Your task to perform on an android device: Open battery settings Image 0: 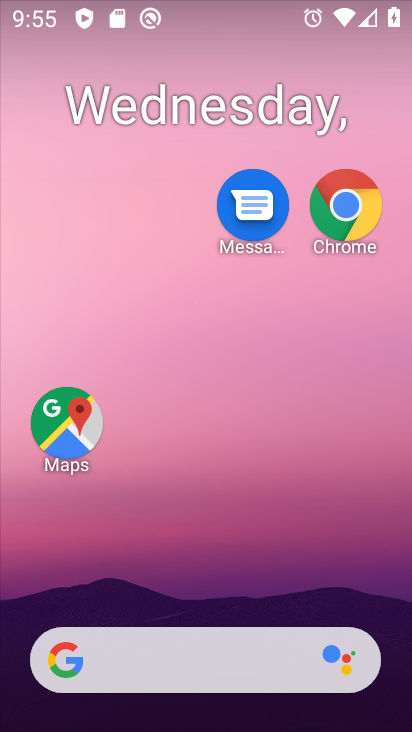
Step 0: drag from (208, 437) to (228, 126)
Your task to perform on an android device: Open battery settings Image 1: 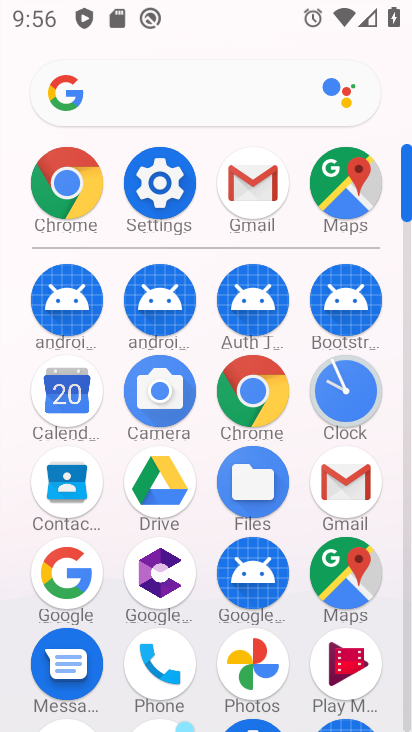
Step 1: drag from (208, 602) to (258, 189)
Your task to perform on an android device: Open battery settings Image 2: 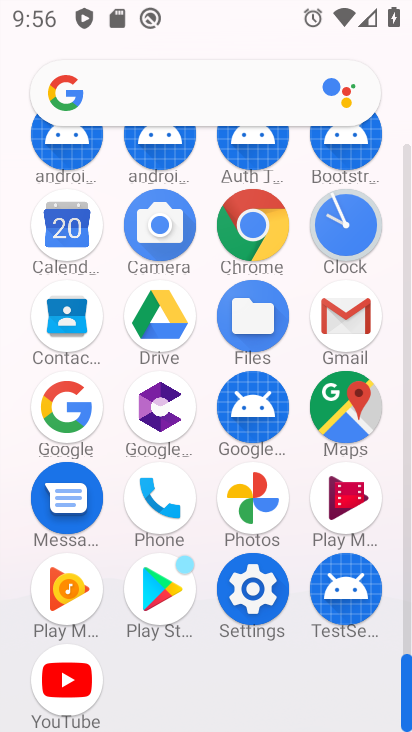
Step 2: click (255, 599)
Your task to perform on an android device: Open battery settings Image 3: 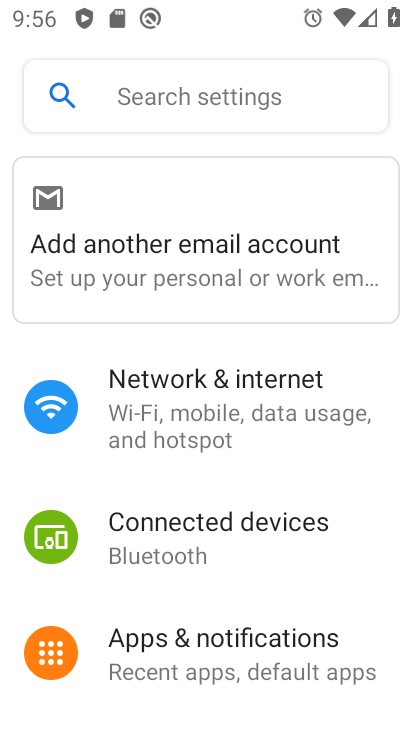
Step 3: drag from (221, 664) to (329, 150)
Your task to perform on an android device: Open battery settings Image 4: 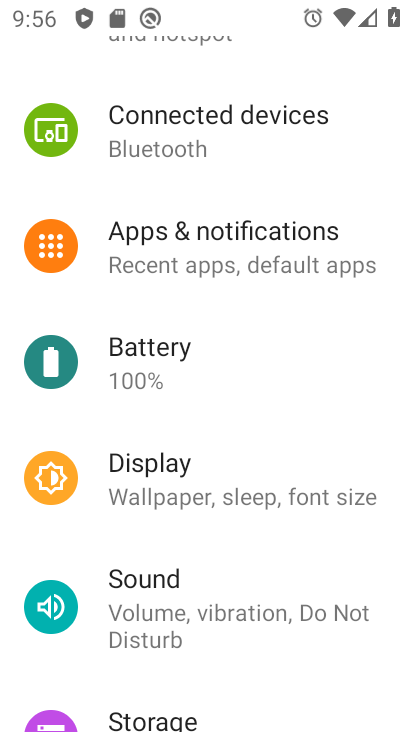
Step 4: click (149, 372)
Your task to perform on an android device: Open battery settings Image 5: 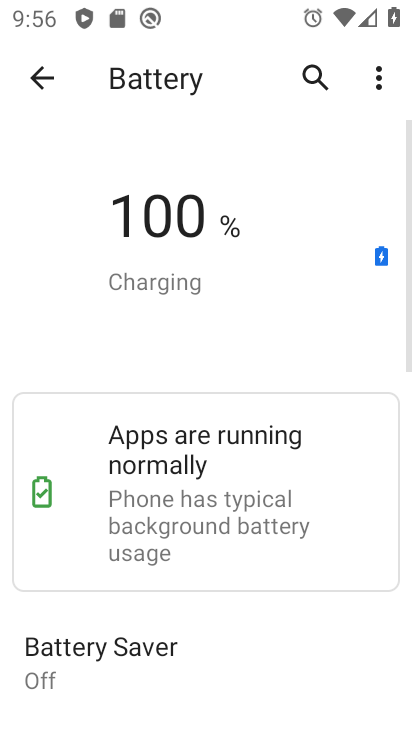
Step 5: task complete